Your task to perform on an android device: turn on location history Image 0: 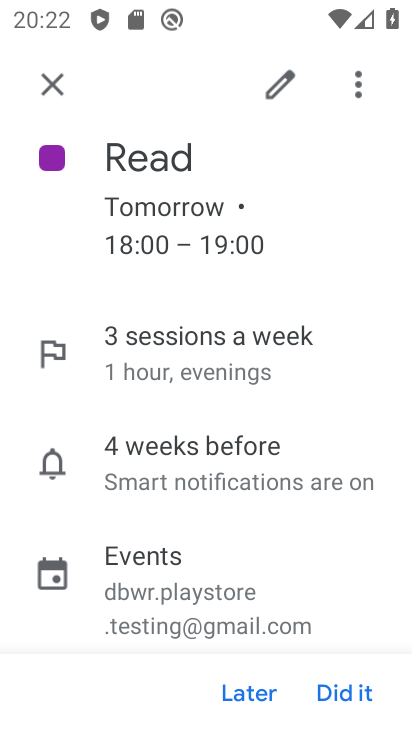
Step 0: press home button
Your task to perform on an android device: turn on location history Image 1: 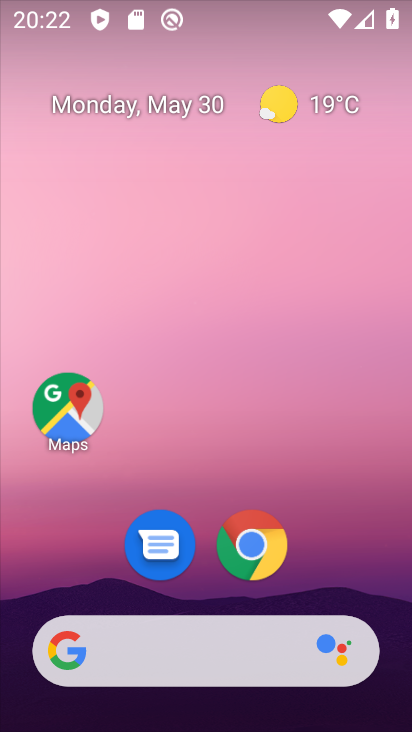
Step 1: drag from (354, 533) to (259, 213)
Your task to perform on an android device: turn on location history Image 2: 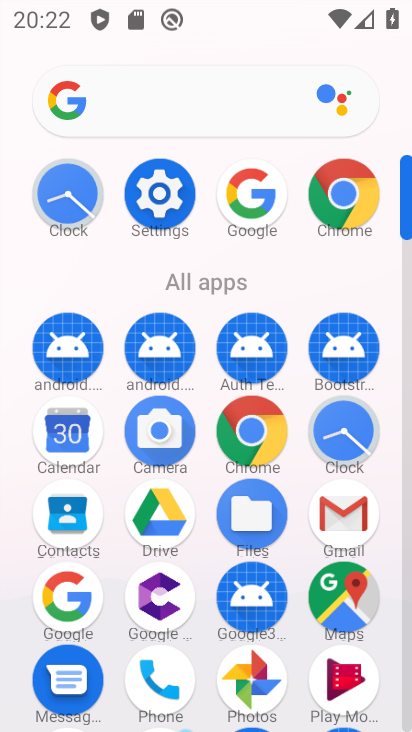
Step 2: click (175, 204)
Your task to perform on an android device: turn on location history Image 3: 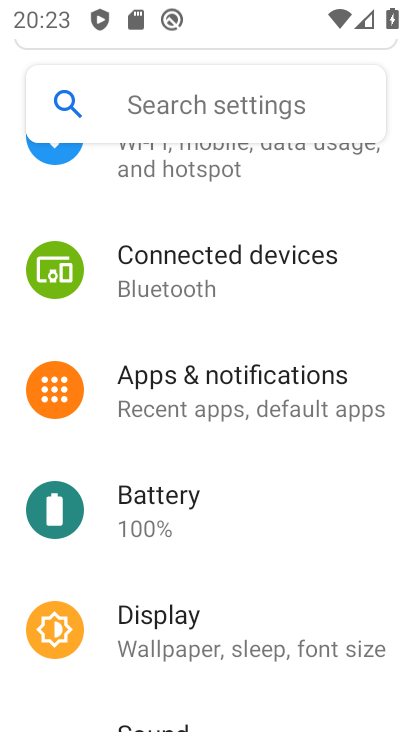
Step 3: drag from (264, 620) to (268, 264)
Your task to perform on an android device: turn on location history Image 4: 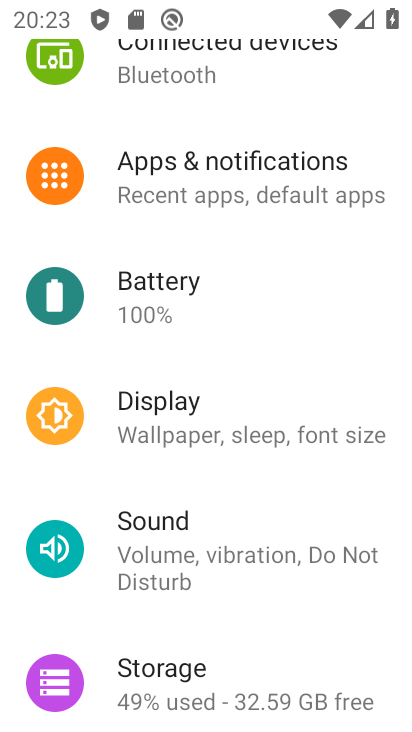
Step 4: drag from (285, 634) to (292, 315)
Your task to perform on an android device: turn on location history Image 5: 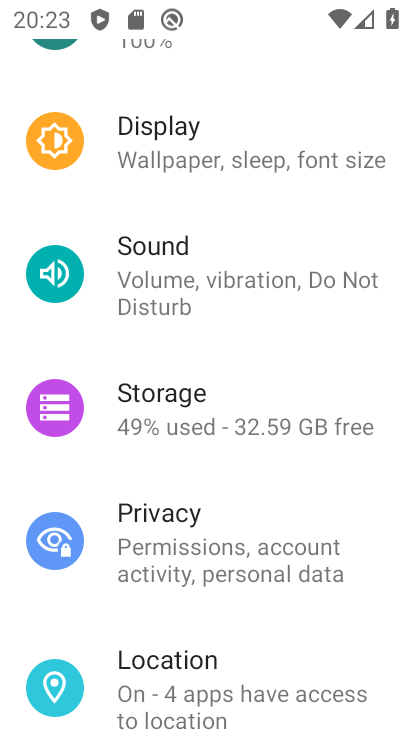
Step 5: click (223, 683)
Your task to perform on an android device: turn on location history Image 6: 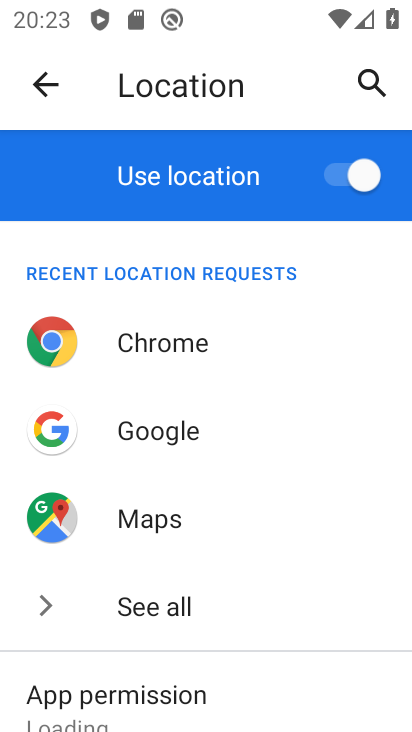
Step 6: drag from (234, 671) to (237, 341)
Your task to perform on an android device: turn on location history Image 7: 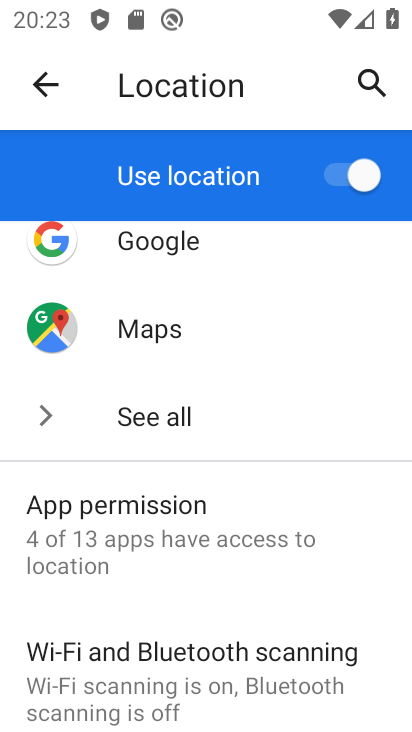
Step 7: drag from (291, 589) to (257, 216)
Your task to perform on an android device: turn on location history Image 8: 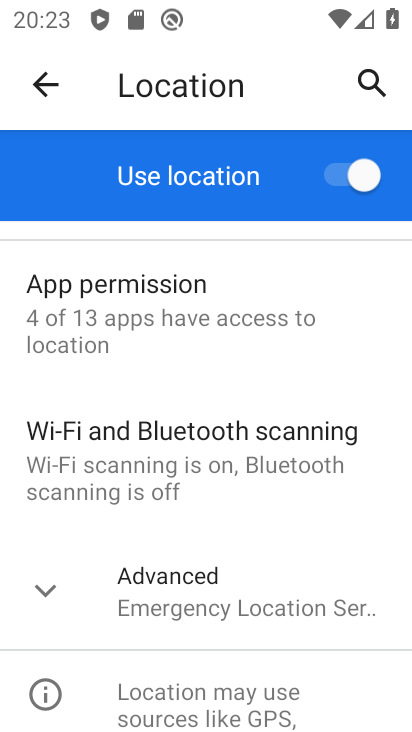
Step 8: click (175, 594)
Your task to perform on an android device: turn on location history Image 9: 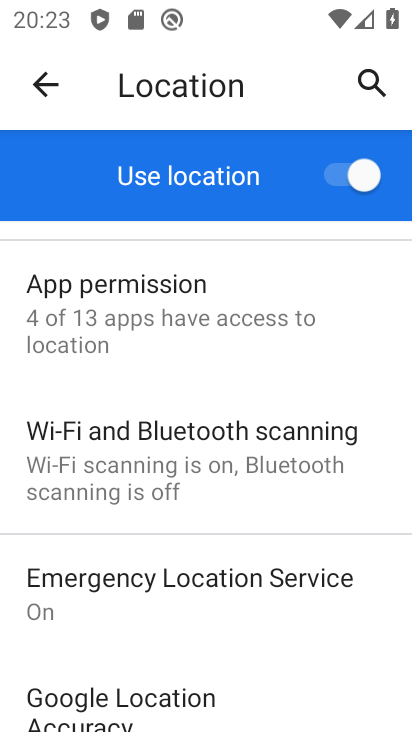
Step 9: task complete